Your task to perform on an android device: clear history in the chrome app Image 0: 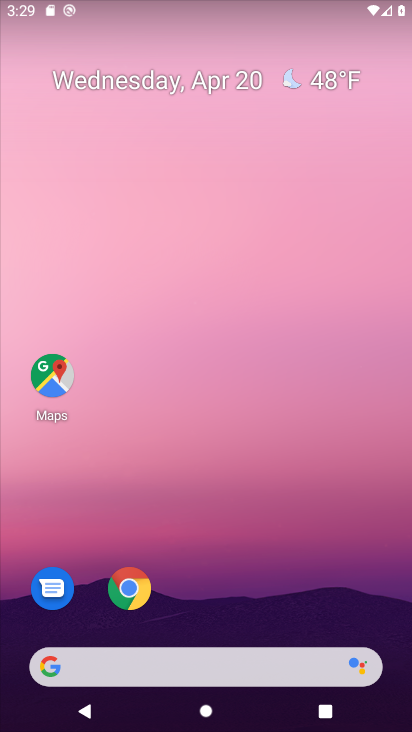
Step 0: drag from (310, 583) to (296, 137)
Your task to perform on an android device: clear history in the chrome app Image 1: 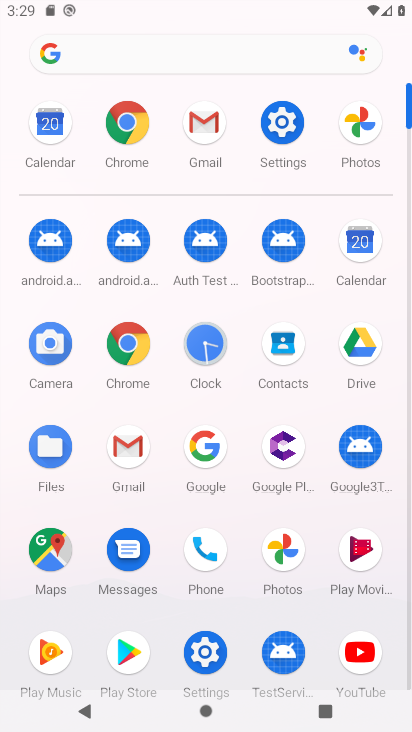
Step 1: click (122, 350)
Your task to perform on an android device: clear history in the chrome app Image 2: 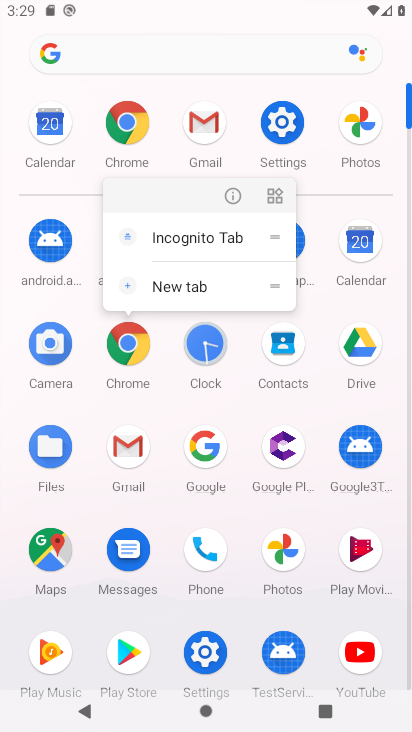
Step 2: click (137, 345)
Your task to perform on an android device: clear history in the chrome app Image 3: 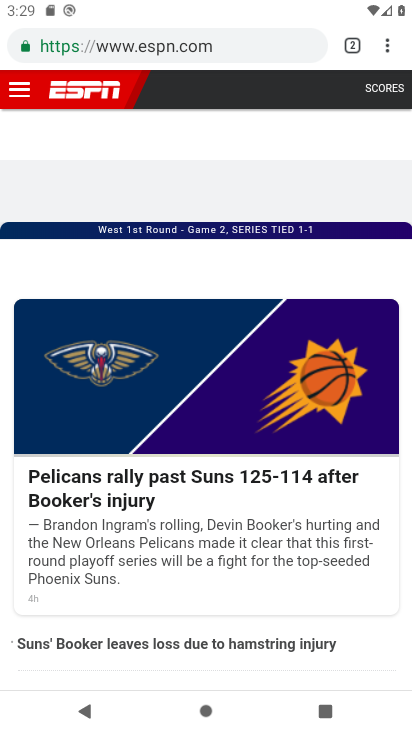
Step 3: click (388, 43)
Your task to perform on an android device: clear history in the chrome app Image 4: 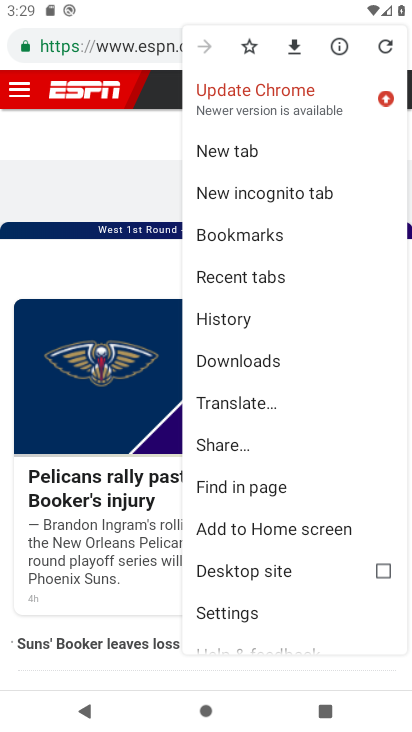
Step 4: click (253, 319)
Your task to perform on an android device: clear history in the chrome app Image 5: 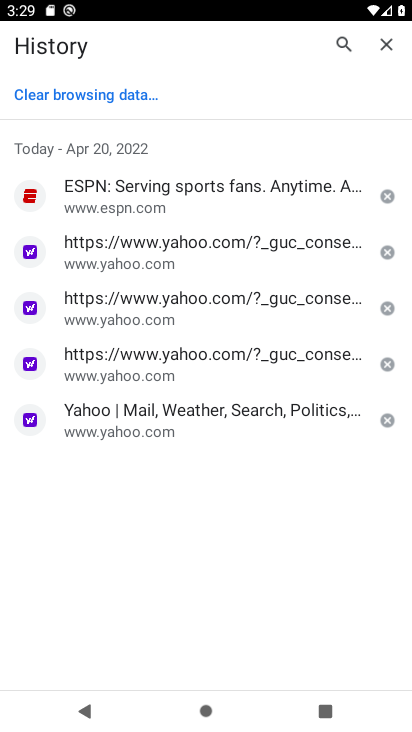
Step 5: click (111, 87)
Your task to perform on an android device: clear history in the chrome app Image 6: 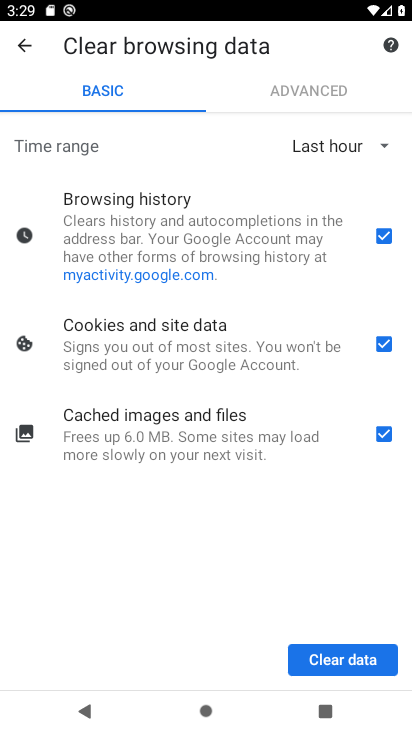
Step 6: click (350, 658)
Your task to perform on an android device: clear history in the chrome app Image 7: 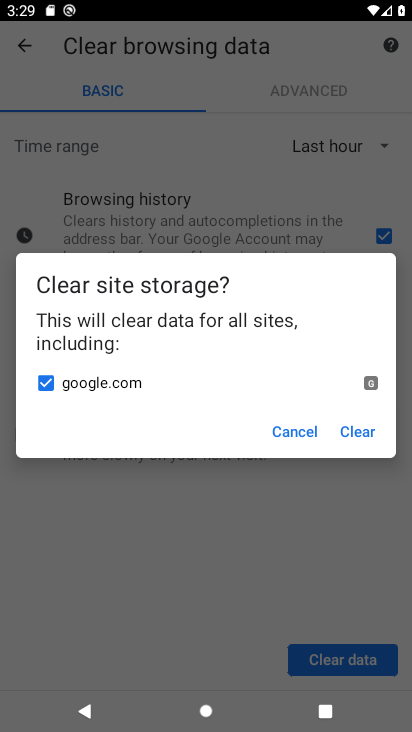
Step 7: click (360, 430)
Your task to perform on an android device: clear history in the chrome app Image 8: 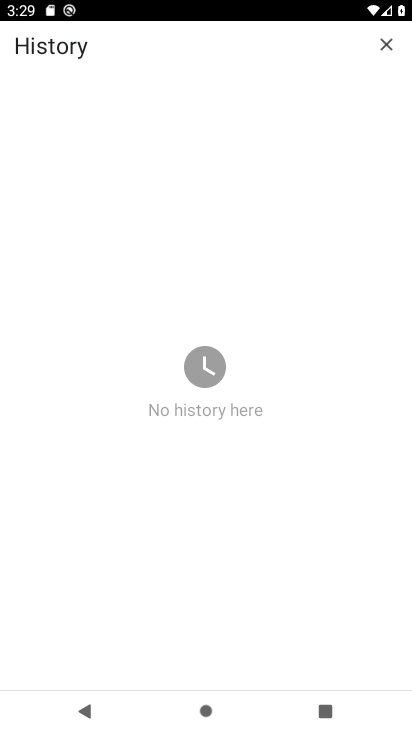
Step 8: task complete